Your task to perform on an android device: Open Google Chrome Image 0: 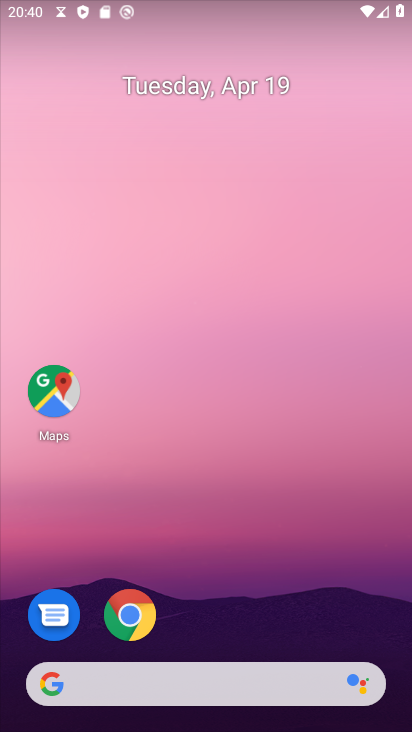
Step 0: drag from (369, 614) to (302, 4)
Your task to perform on an android device: Open Google Chrome Image 1: 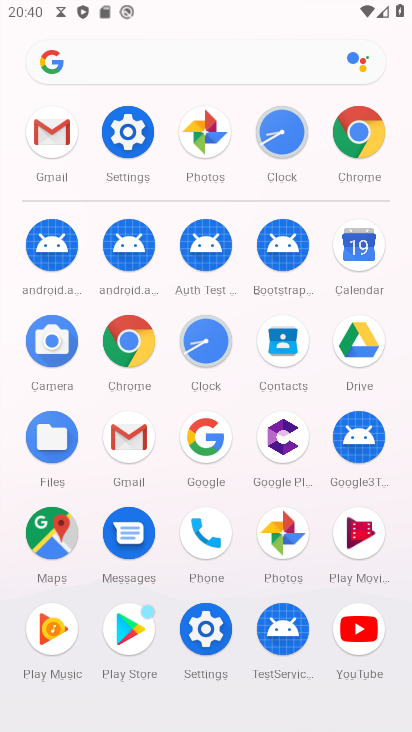
Step 1: click (358, 130)
Your task to perform on an android device: Open Google Chrome Image 2: 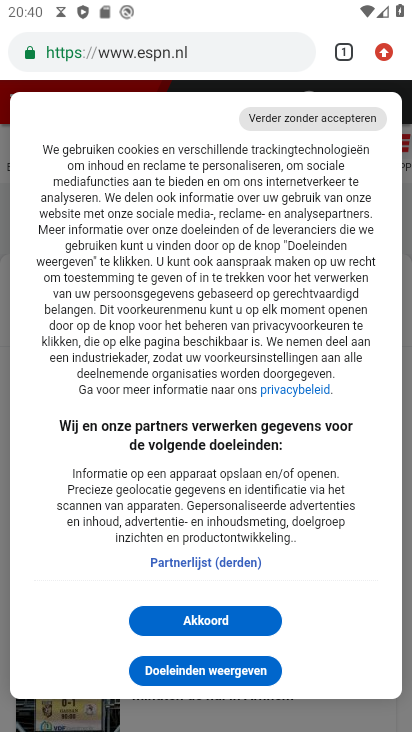
Step 2: click (212, 617)
Your task to perform on an android device: Open Google Chrome Image 3: 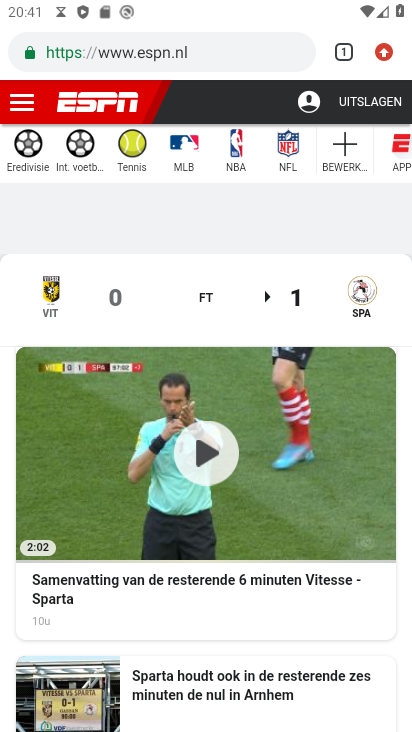
Step 3: task complete